Your task to perform on an android device: What's on my calendar tomorrow? Image 0: 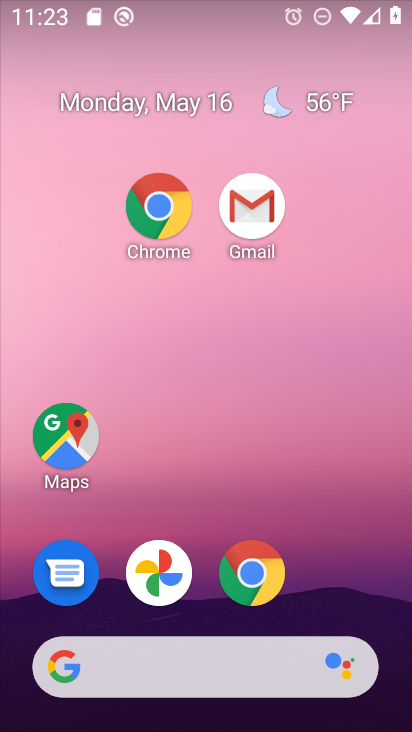
Step 0: drag from (342, 600) to (98, 107)
Your task to perform on an android device: What's on my calendar tomorrow? Image 1: 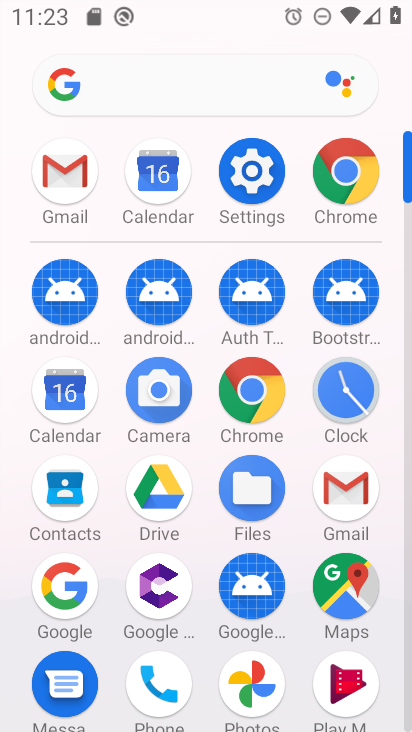
Step 1: click (70, 390)
Your task to perform on an android device: What's on my calendar tomorrow? Image 2: 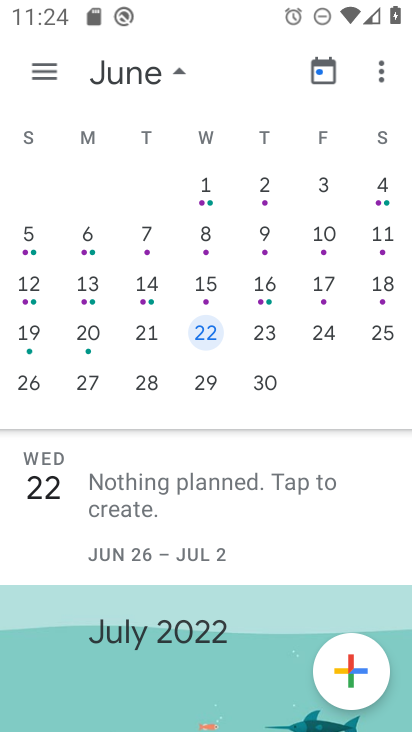
Step 2: drag from (155, 301) to (404, 273)
Your task to perform on an android device: What's on my calendar tomorrow? Image 3: 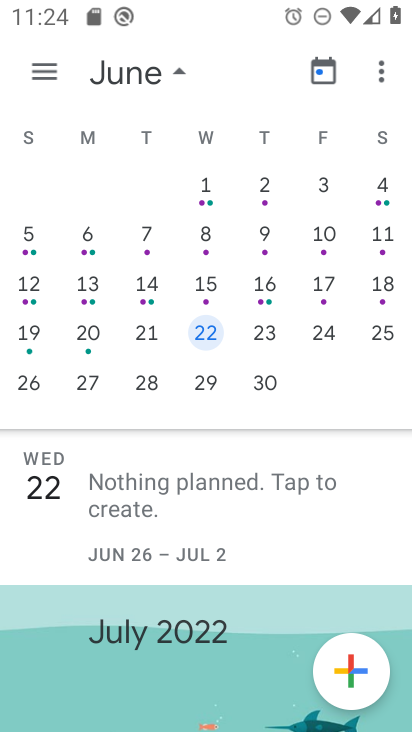
Step 3: drag from (137, 304) to (400, 373)
Your task to perform on an android device: What's on my calendar tomorrow? Image 4: 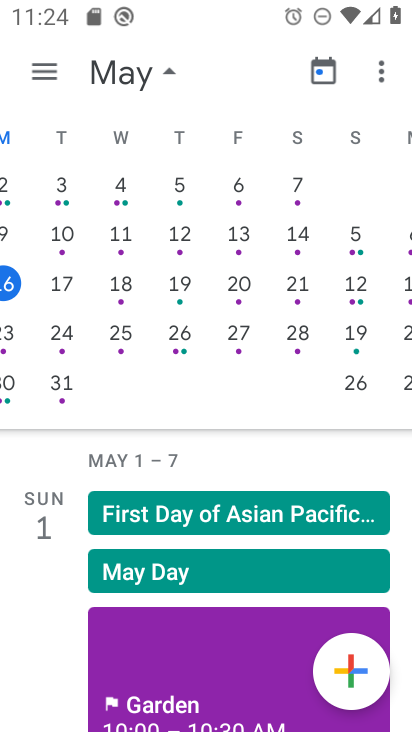
Step 4: drag from (141, 298) to (403, 339)
Your task to perform on an android device: What's on my calendar tomorrow? Image 5: 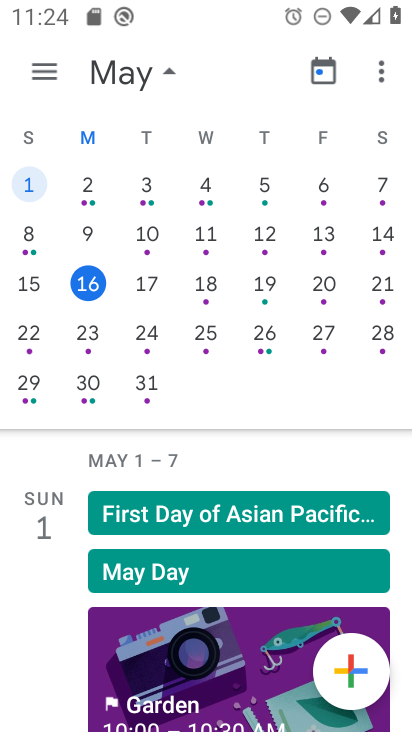
Step 5: click (195, 286)
Your task to perform on an android device: What's on my calendar tomorrow? Image 6: 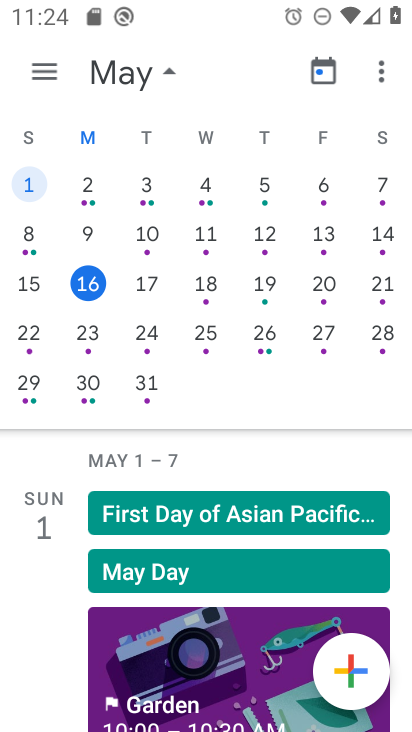
Step 6: click (197, 286)
Your task to perform on an android device: What's on my calendar tomorrow? Image 7: 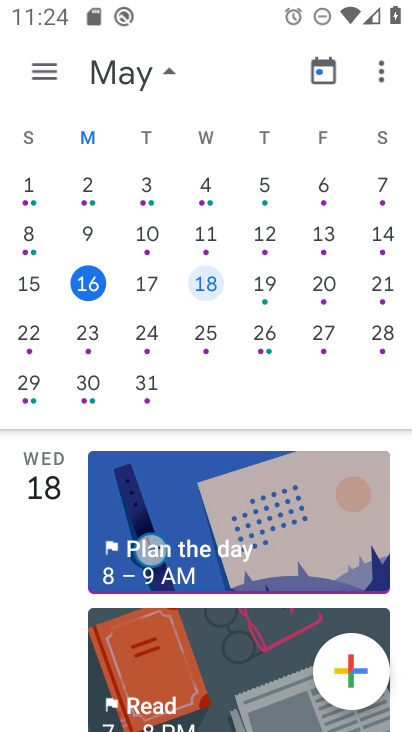
Step 7: click (199, 286)
Your task to perform on an android device: What's on my calendar tomorrow? Image 8: 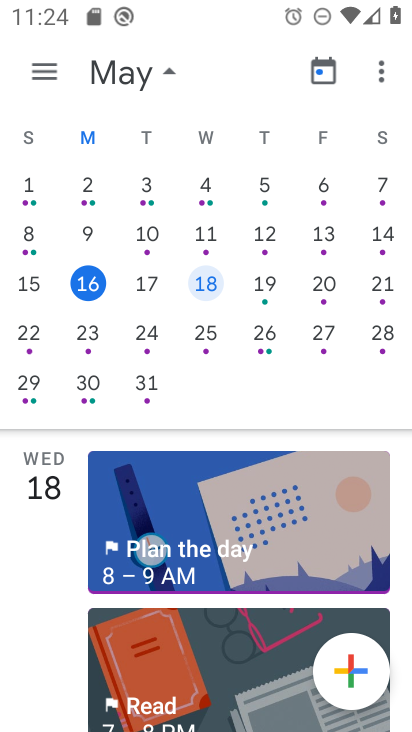
Step 8: click (213, 551)
Your task to perform on an android device: What's on my calendar tomorrow? Image 9: 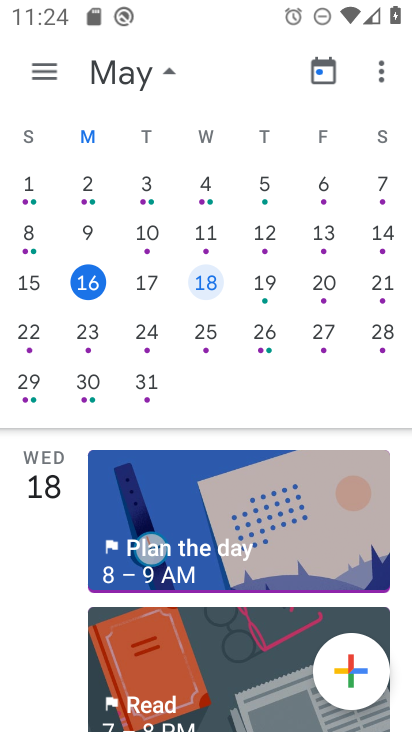
Step 9: click (228, 469)
Your task to perform on an android device: What's on my calendar tomorrow? Image 10: 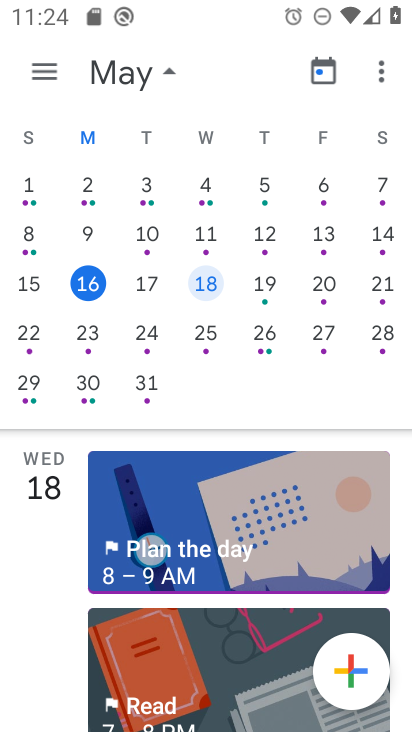
Step 10: click (212, 523)
Your task to perform on an android device: What's on my calendar tomorrow? Image 11: 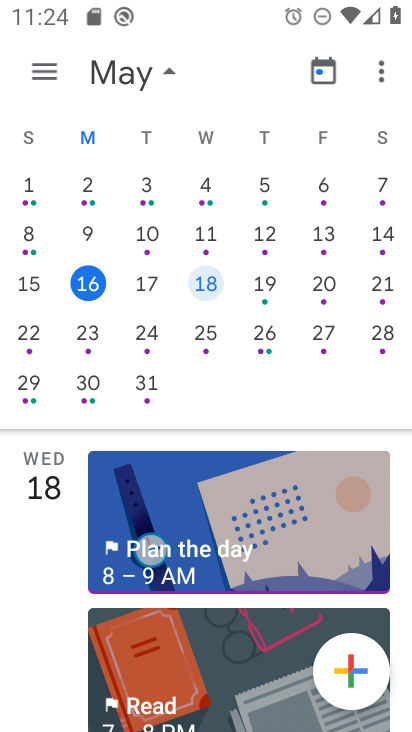
Step 11: click (207, 522)
Your task to perform on an android device: What's on my calendar tomorrow? Image 12: 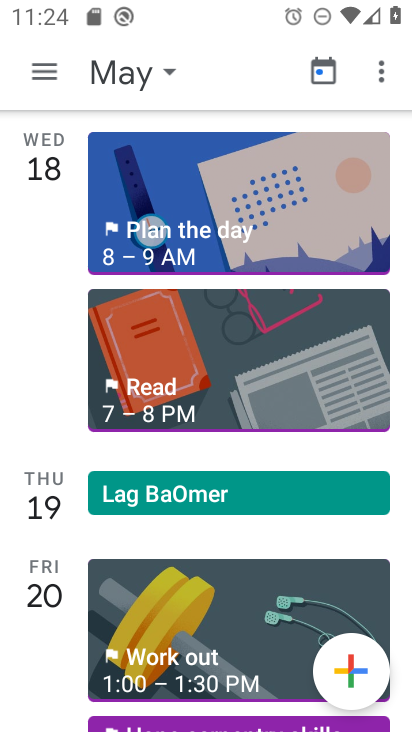
Step 12: task complete